Your task to perform on an android device: Open Yahoo.com Image 0: 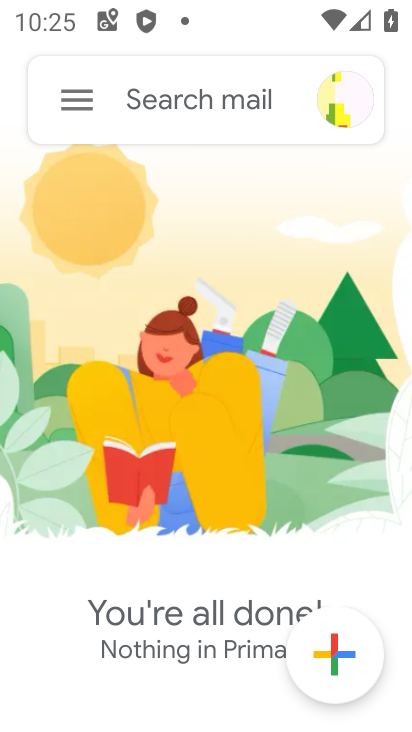
Step 0: press home button
Your task to perform on an android device: Open Yahoo.com Image 1: 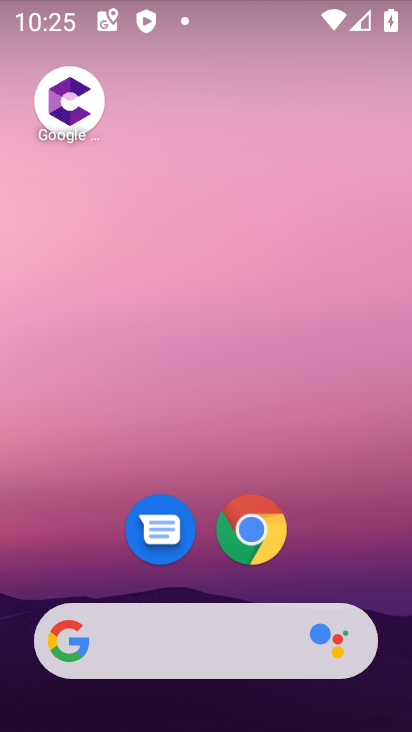
Step 1: click (179, 616)
Your task to perform on an android device: Open Yahoo.com Image 2: 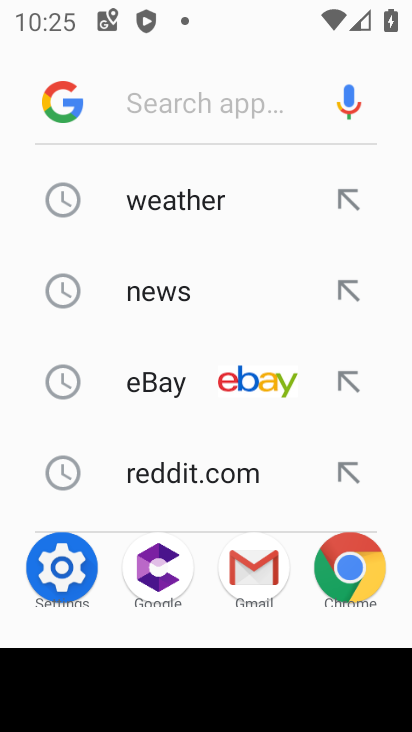
Step 2: type "Yahoo.com"
Your task to perform on an android device: Open Yahoo.com Image 3: 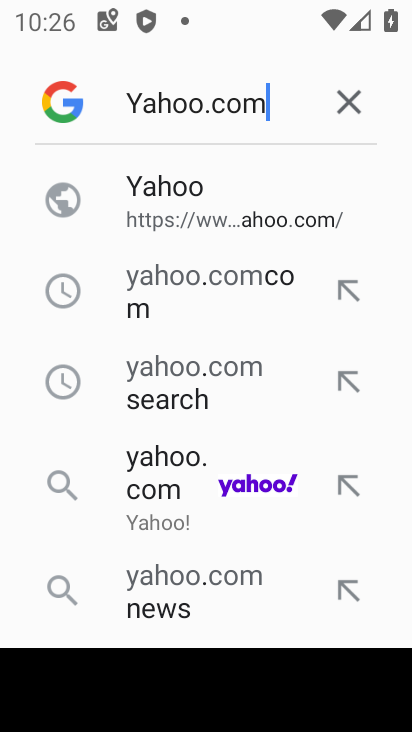
Step 3: click (196, 183)
Your task to perform on an android device: Open Yahoo.com Image 4: 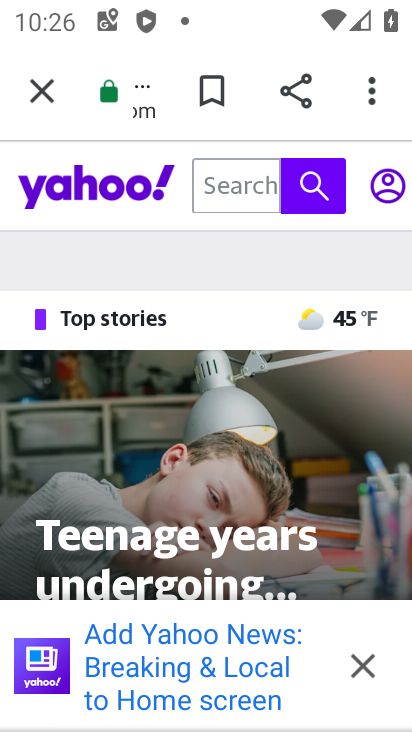
Step 4: task complete